Your task to perform on an android device: turn off location history Image 0: 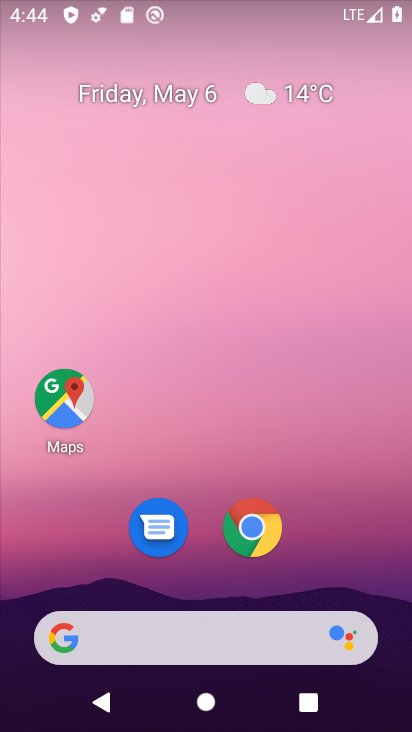
Step 0: drag from (218, 718) to (208, 263)
Your task to perform on an android device: turn off location history Image 1: 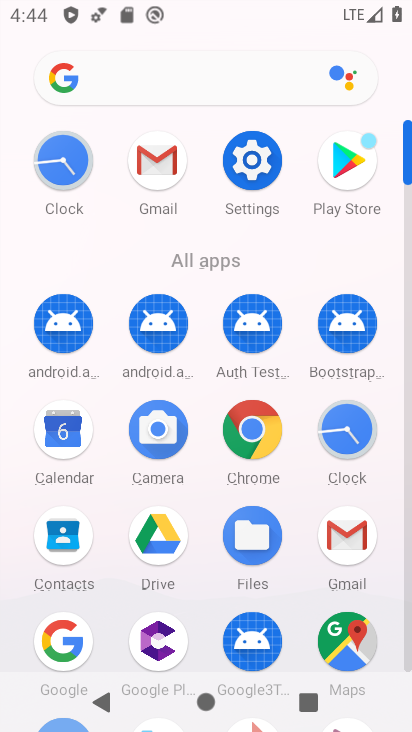
Step 1: click (250, 156)
Your task to perform on an android device: turn off location history Image 2: 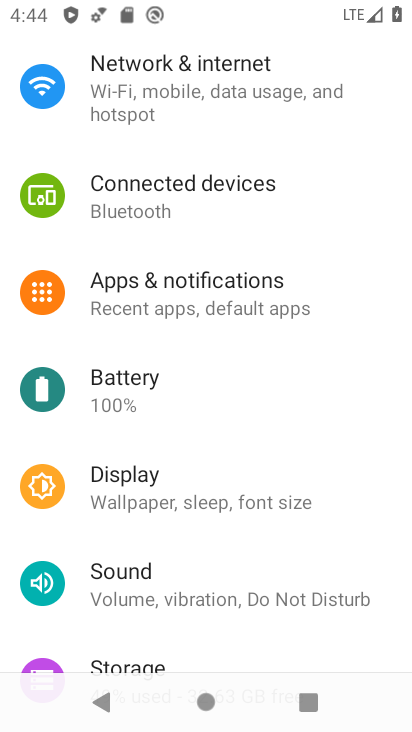
Step 2: drag from (204, 630) to (205, 367)
Your task to perform on an android device: turn off location history Image 3: 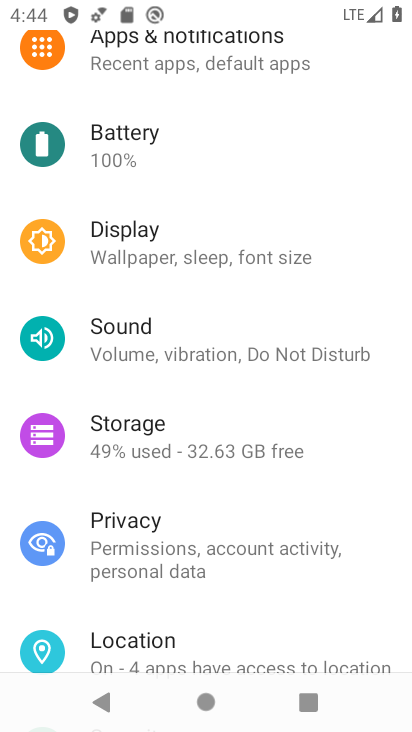
Step 3: click (162, 652)
Your task to perform on an android device: turn off location history Image 4: 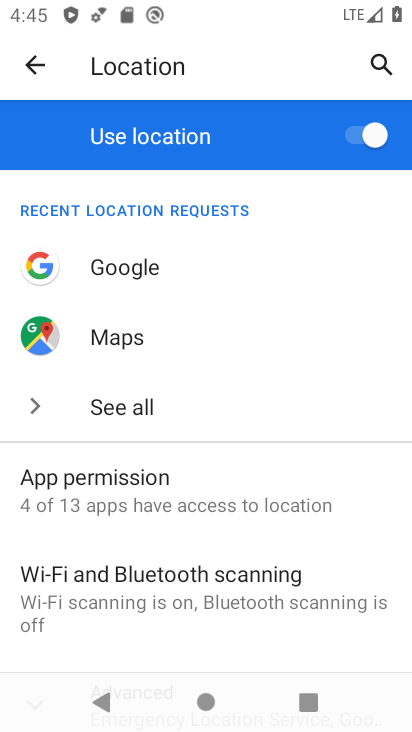
Step 4: drag from (150, 641) to (158, 340)
Your task to perform on an android device: turn off location history Image 5: 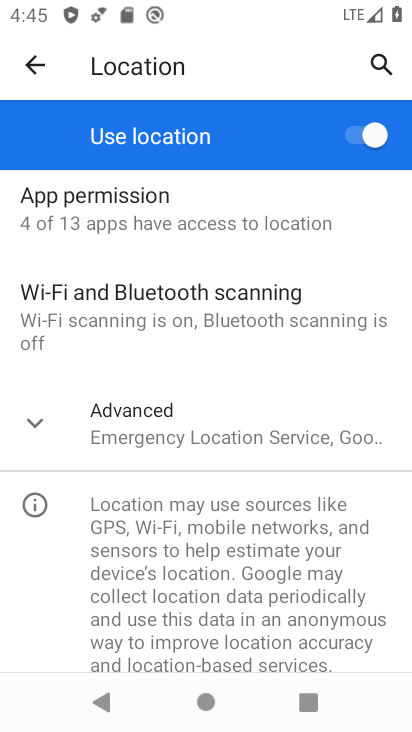
Step 5: click (156, 424)
Your task to perform on an android device: turn off location history Image 6: 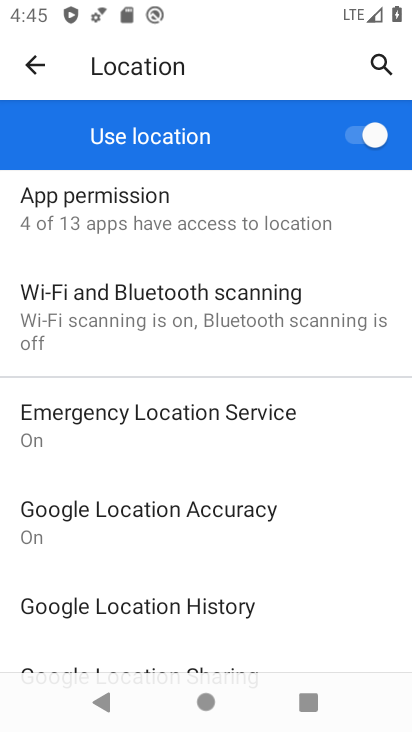
Step 6: click (183, 602)
Your task to perform on an android device: turn off location history Image 7: 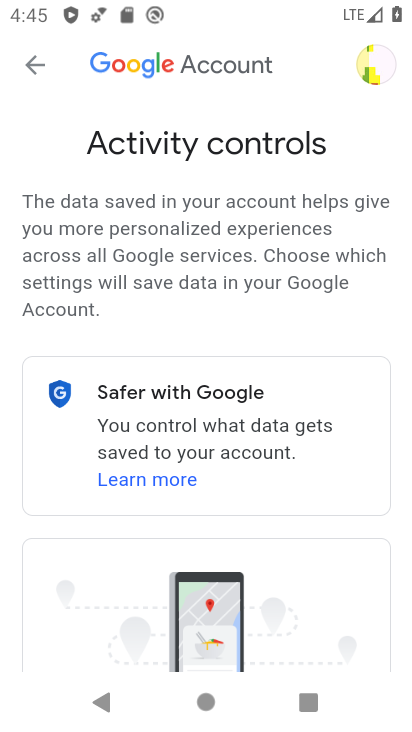
Step 7: drag from (313, 644) to (294, 274)
Your task to perform on an android device: turn off location history Image 8: 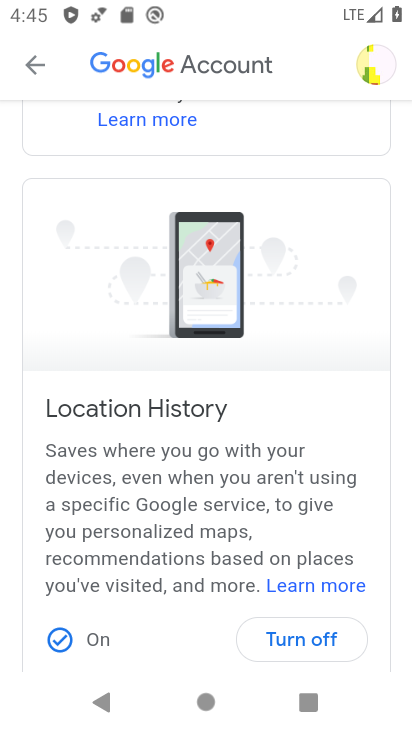
Step 8: click (316, 630)
Your task to perform on an android device: turn off location history Image 9: 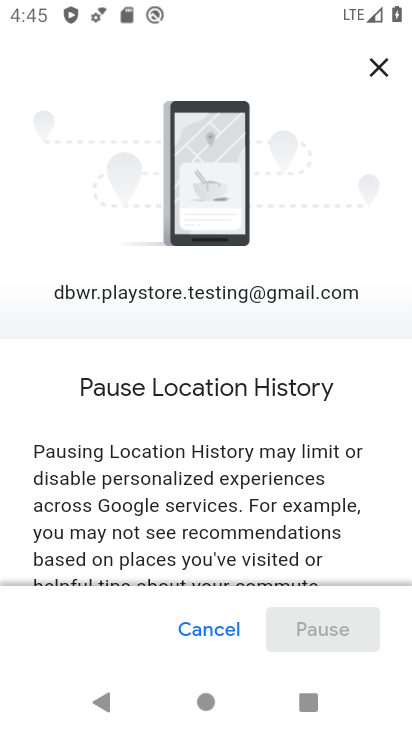
Step 9: drag from (241, 538) to (244, 158)
Your task to perform on an android device: turn off location history Image 10: 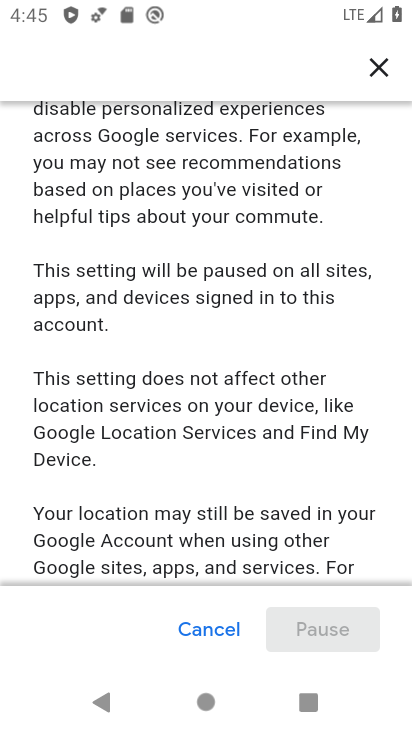
Step 10: drag from (182, 560) to (203, 127)
Your task to perform on an android device: turn off location history Image 11: 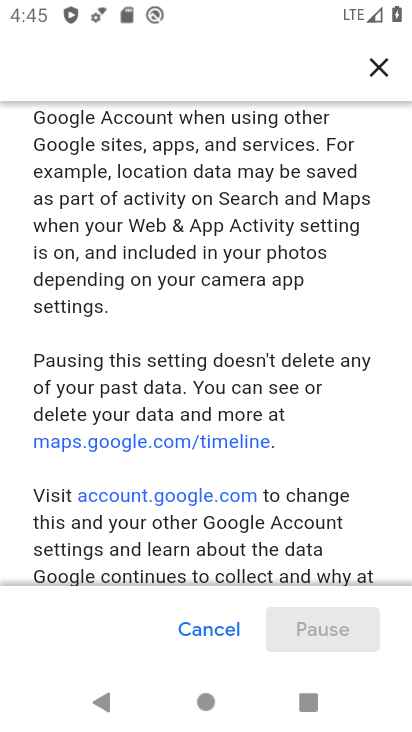
Step 11: drag from (294, 558) to (306, 168)
Your task to perform on an android device: turn off location history Image 12: 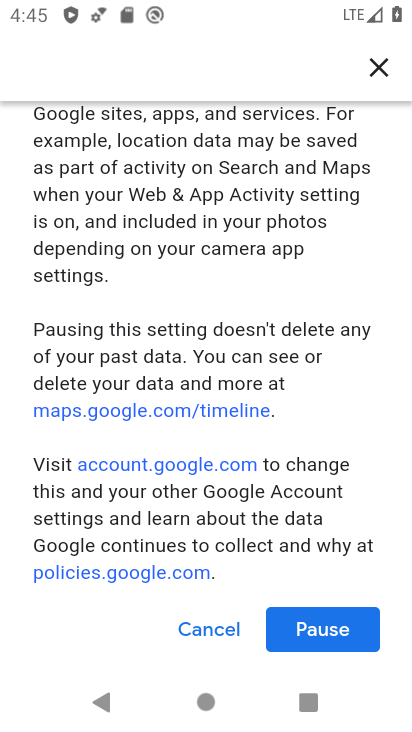
Step 12: click (327, 637)
Your task to perform on an android device: turn off location history Image 13: 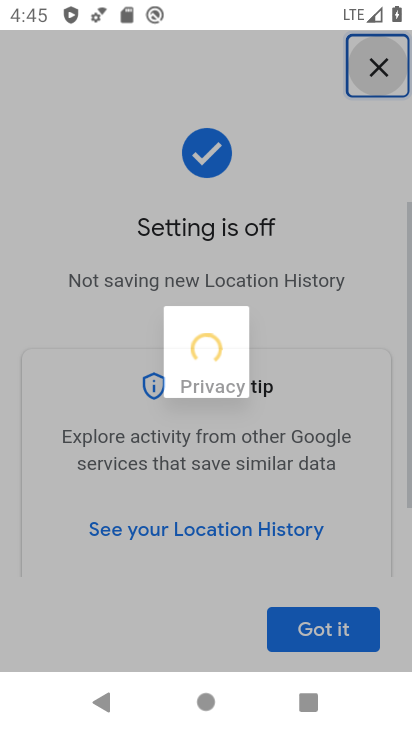
Step 13: click (322, 625)
Your task to perform on an android device: turn off location history Image 14: 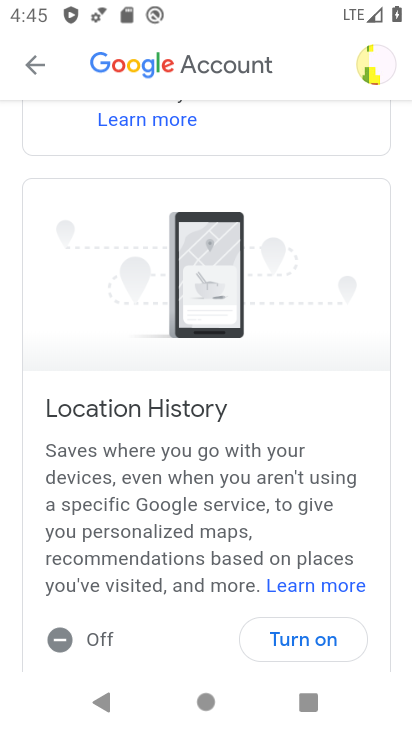
Step 14: task complete